Your task to perform on an android device: toggle notification dots Image 0: 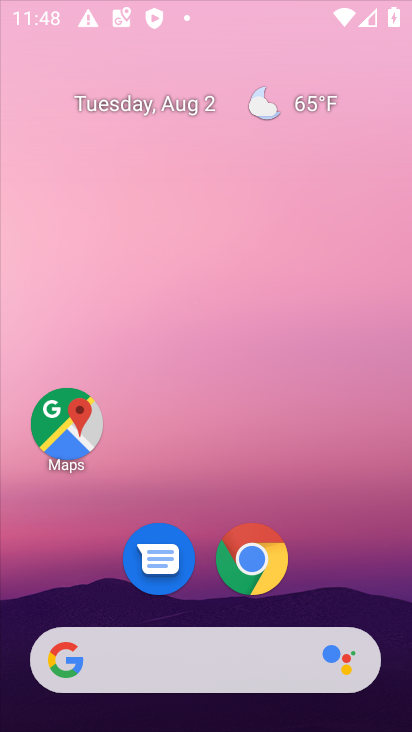
Step 0: drag from (202, 718) to (169, 52)
Your task to perform on an android device: toggle notification dots Image 1: 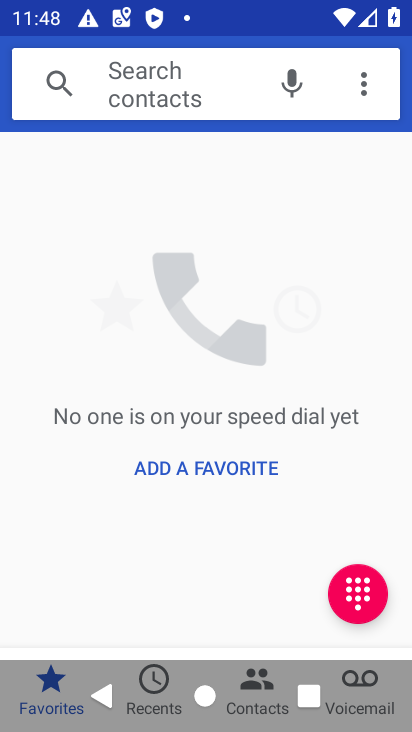
Step 1: press home button
Your task to perform on an android device: toggle notification dots Image 2: 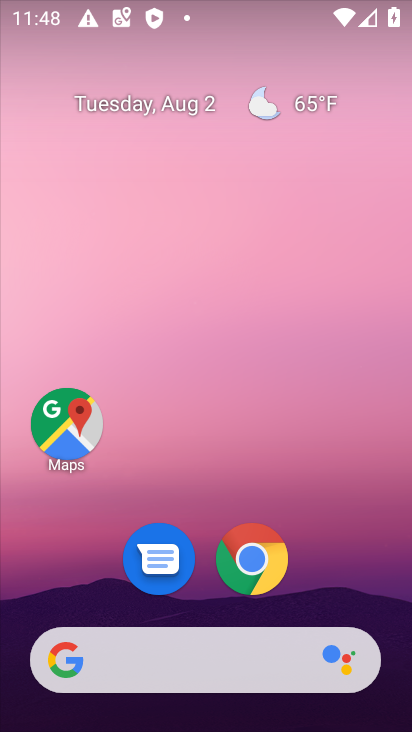
Step 2: drag from (212, 613) to (204, 108)
Your task to perform on an android device: toggle notification dots Image 3: 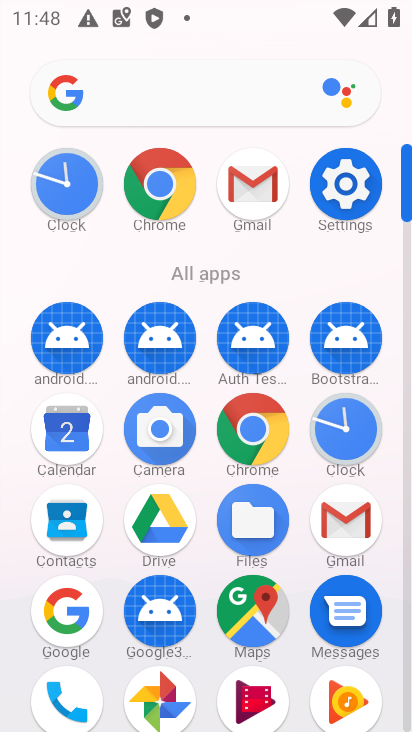
Step 3: click (152, 696)
Your task to perform on an android device: toggle notification dots Image 4: 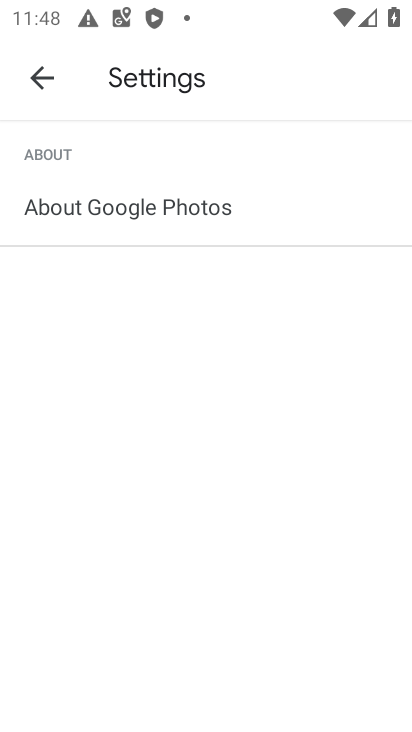
Step 4: click (43, 76)
Your task to perform on an android device: toggle notification dots Image 5: 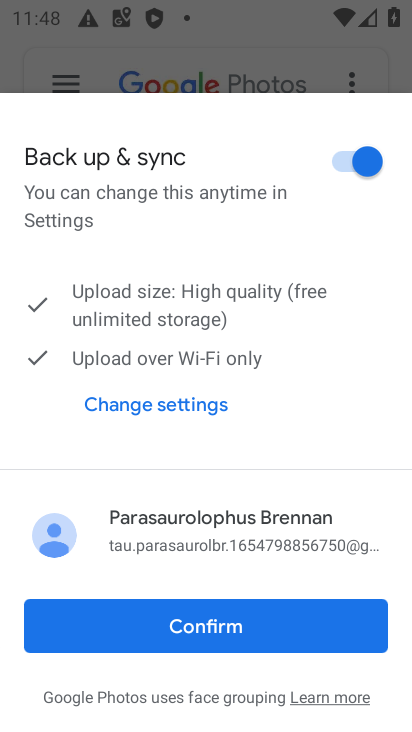
Step 5: press home button
Your task to perform on an android device: toggle notification dots Image 6: 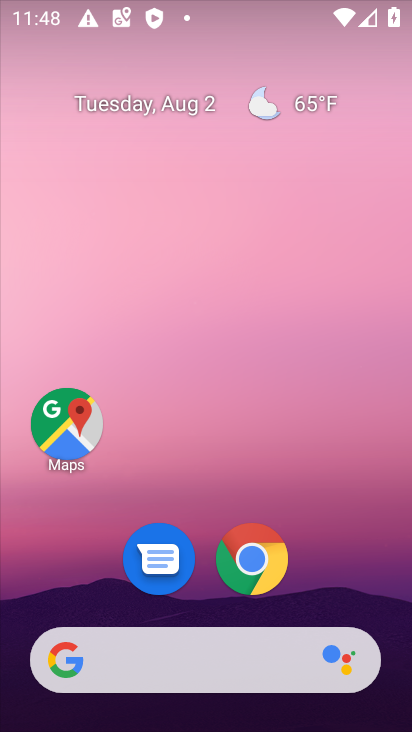
Step 6: drag from (236, 703) to (234, 112)
Your task to perform on an android device: toggle notification dots Image 7: 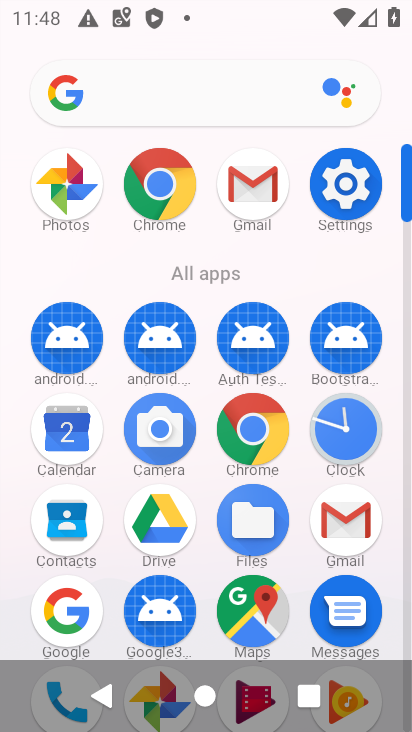
Step 7: click (347, 191)
Your task to perform on an android device: toggle notification dots Image 8: 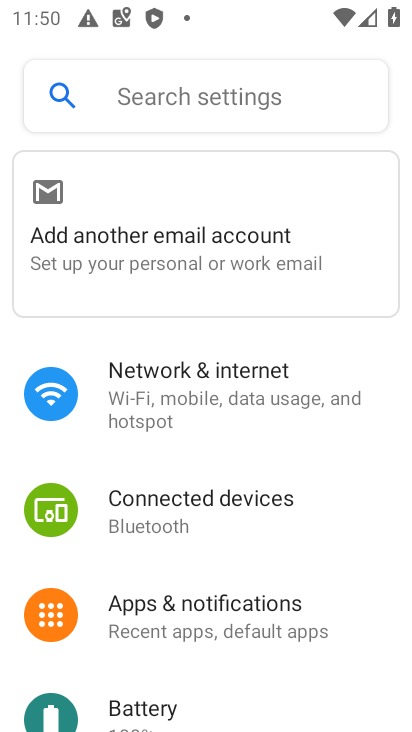
Step 8: click (226, 617)
Your task to perform on an android device: toggle notification dots Image 9: 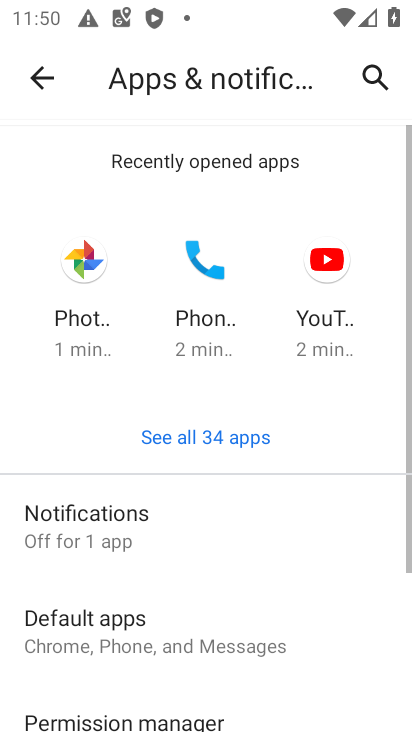
Step 9: click (92, 522)
Your task to perform on an android device: toggle notification dots Image 10: 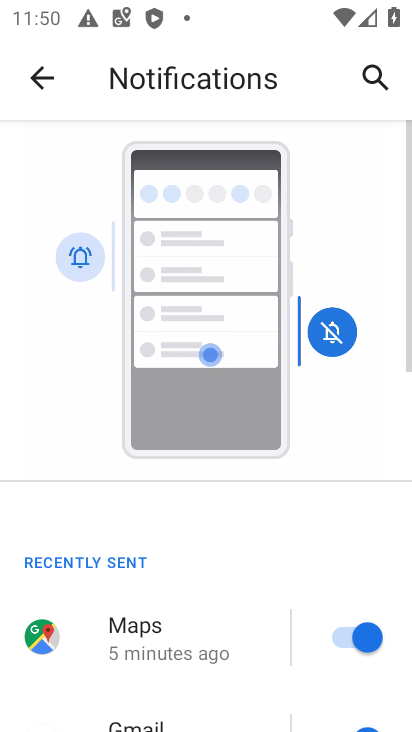
Step 10: drag from (280, 625) to (260, 332)
Your task to perform on an android device: toggle notification dots Image 11: 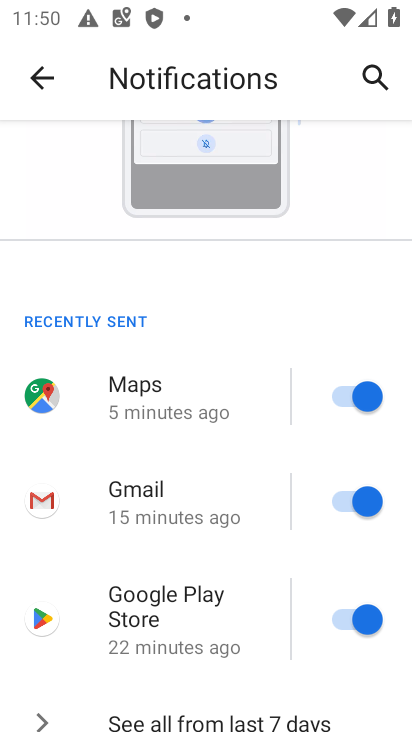
Step 11: drag from (232, 688) to (231, 336)
Your task to perform on an android device: toggle notification dots Image 12: 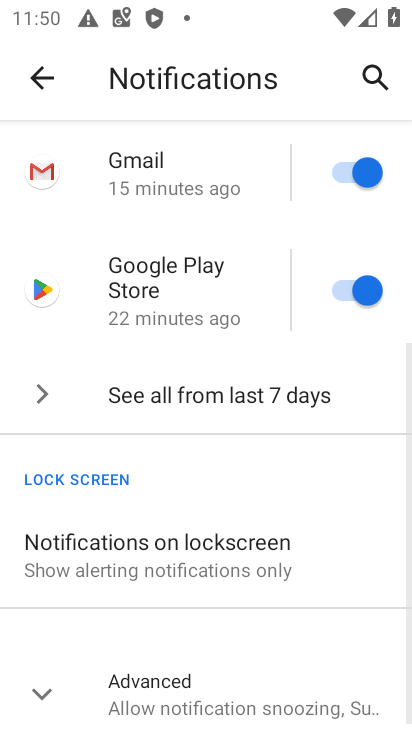
Step 12: drag from (223, 682) to (227, 421)
Your task to perform on an android device: toggle notification dots Image 13: 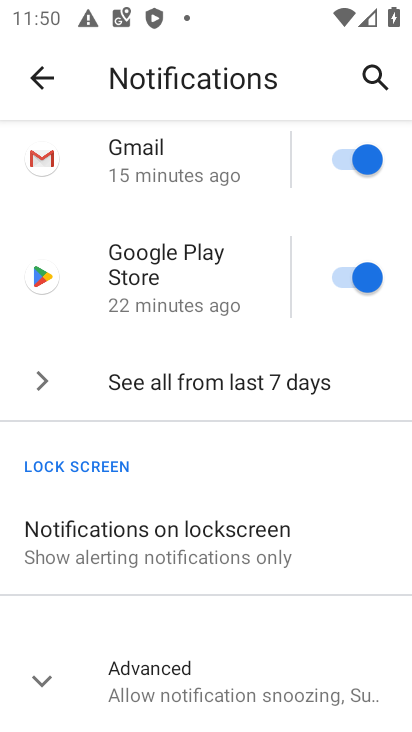
Step 13: click (197, 679)
Your task to perform on an android device: toggle notification dots Image 14: 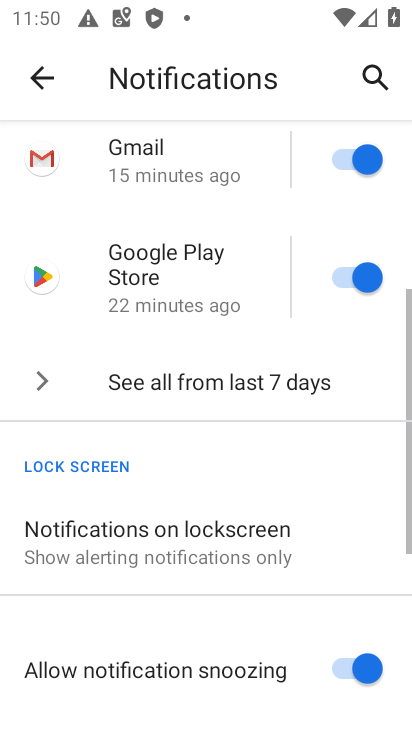
Step 14: drag from (251, 681) to (244, 427)
Your task to perform on an android device: toggle notification dots Image 15: 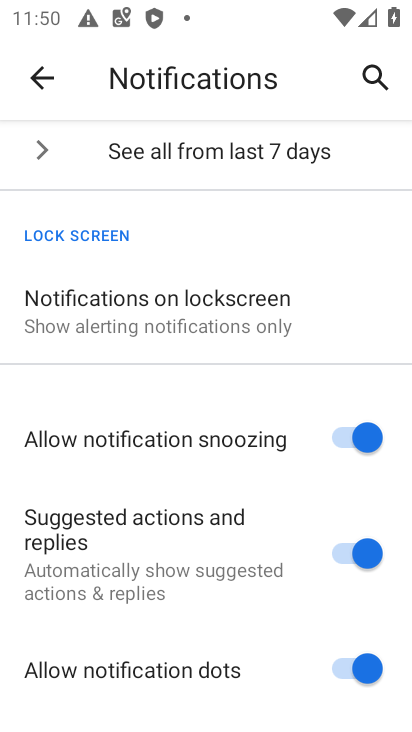
Step 15: click (347, 668)
Your task to perform on an android device: toggle notification dots Image 16: 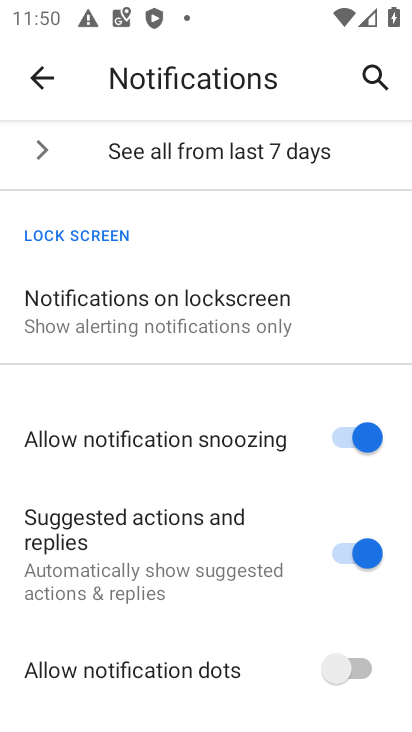
Step 16: task complete